Your task to perform on an android device: What's the weather going to be tomorrow? Image 0: 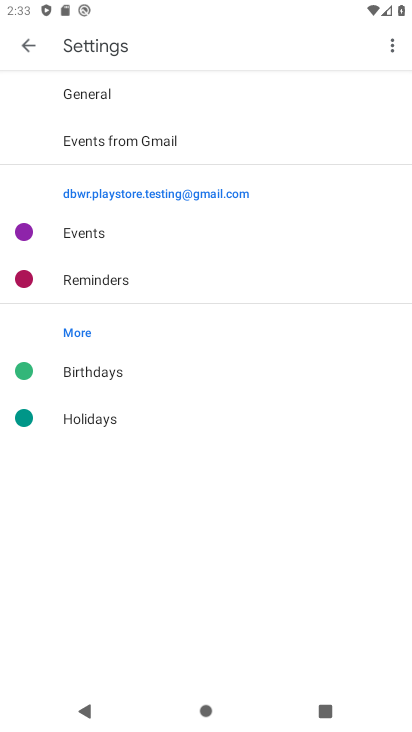
Step 0: press home button
Your task to perform on an android device: What's the weather going to be tomorrow? Image 1: 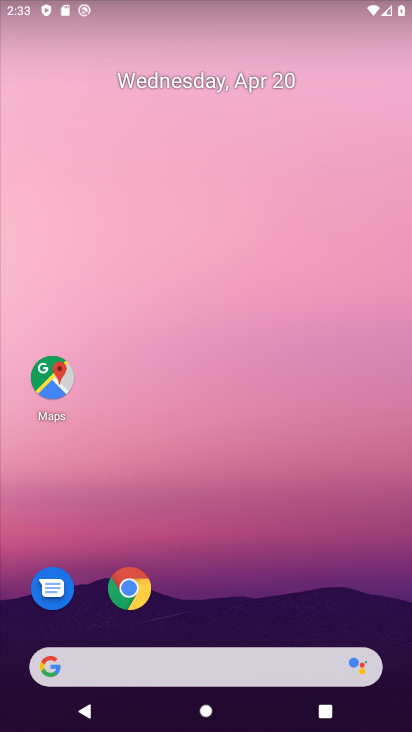
Step 1: click (235, 658)
Your task to perform on an android device: What's the weather going to be tomorrow? Image 2: 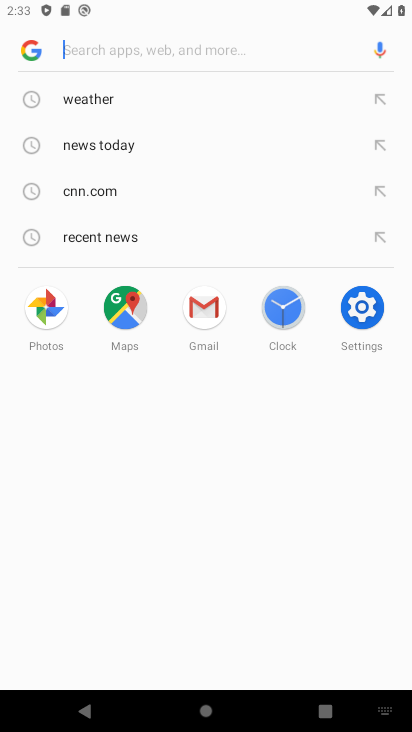
Step 2: type "what's the weather going to be tomorrow? google"
Your task to perform on an android device: What's the weather going to be tomorrow? Image 3: 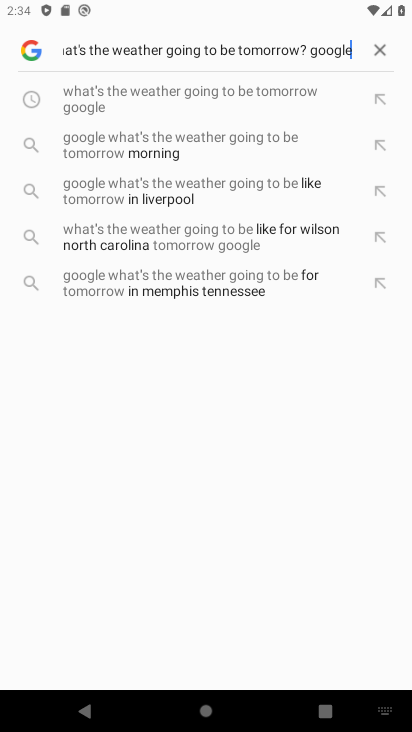
Step 3: click (210, 87)
Your task to perform on an android device: What's the weather going to be tomorrow? Image 4: 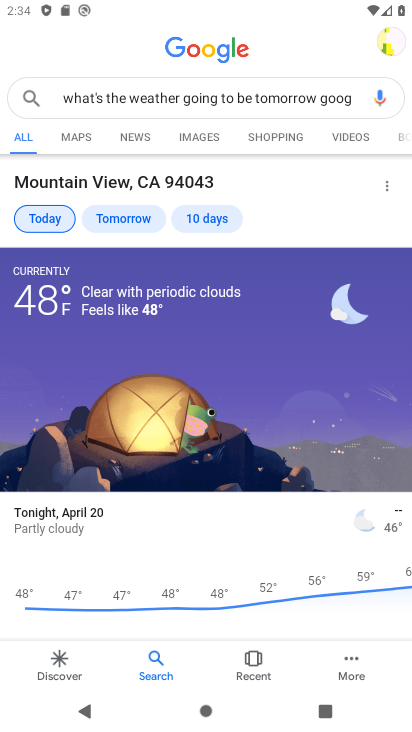
Step 4: click (122, 215)
Your task to perform on an android device: What's the weather going to be tomorrow? Image 5: 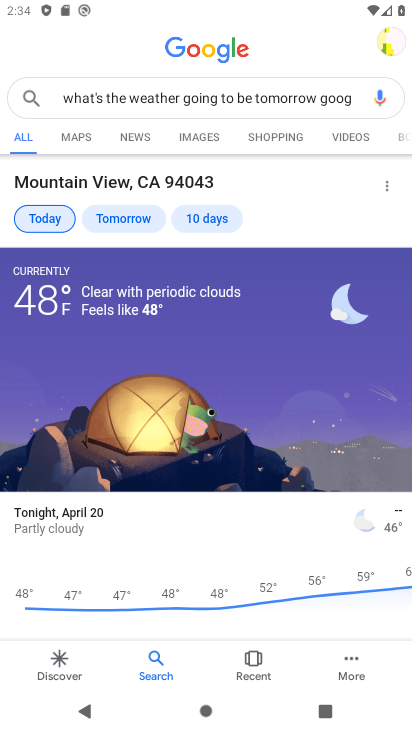
Step 5: click (123, 216)
Your task to perform on an android device: What's the weather going to be tomorrow? Image 6: 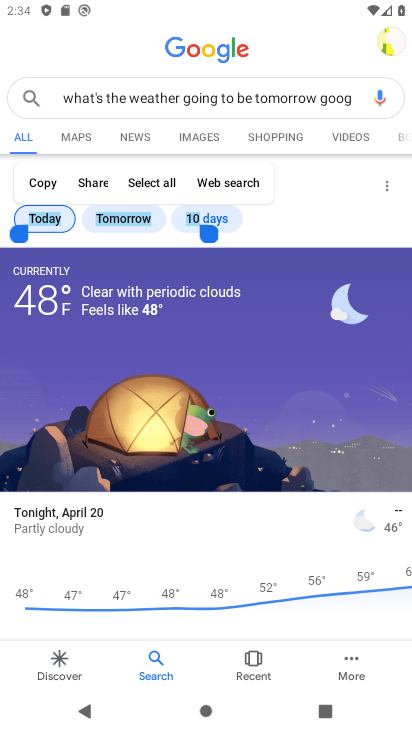
Step 6: click (145, 227)
Your task to perform on an android device: What's the weather going to be tomorrow? Image 7: 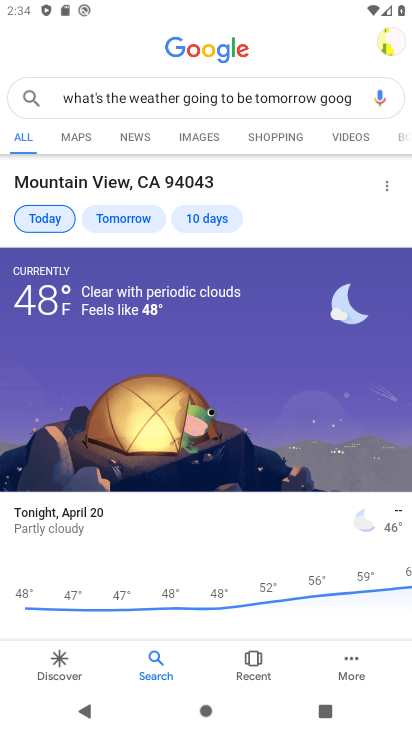
Step 7: task complete